Your task to perform on an android device: turn pop-ups off in chrome Image 0: 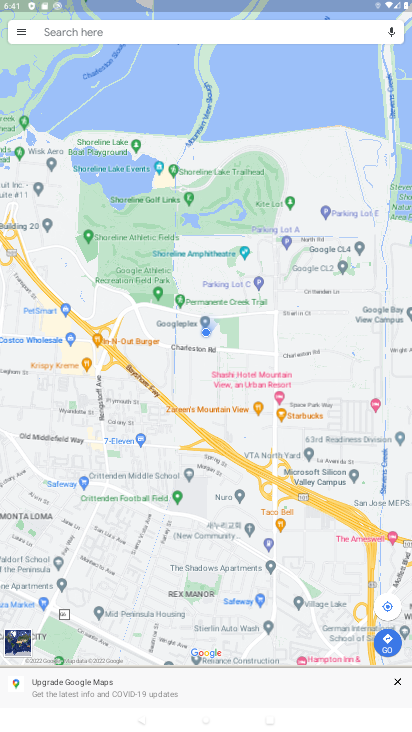
Step 0: press home button
Your task to perform on an android device: turn pop-ups off in chrome Image 1: 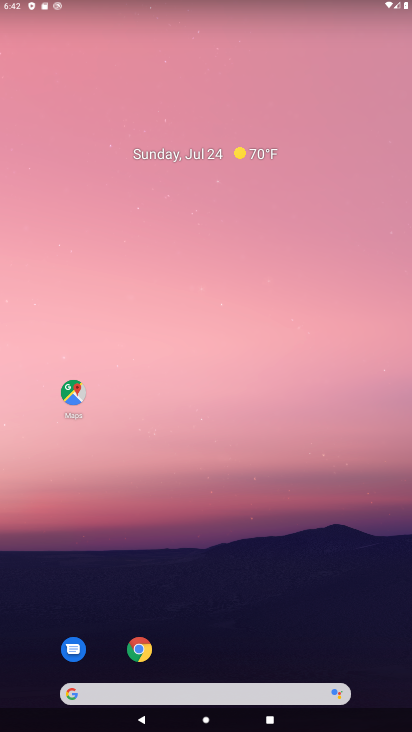
Step 1: click (137, 651)
Your task to perform on an android device: turn pop-ups off in chrome Image 2: 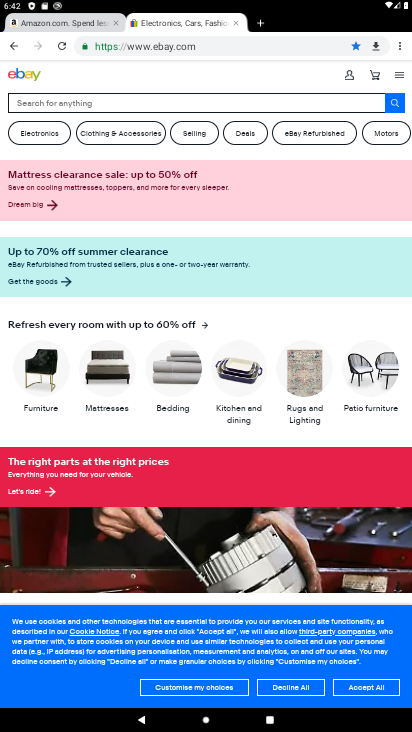
Step 2: click (400, 39)
Your task to perform on an android device: turn pop-ups off in chrome Image 3: 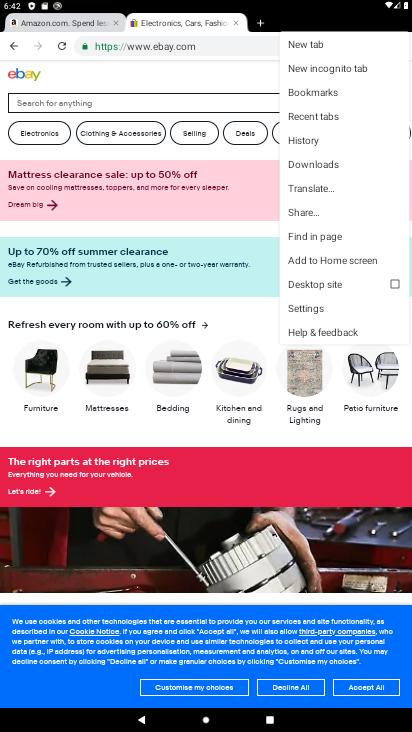
Step 3: click (311, 302)
Your task to perform on an android device: turn pop-ups off in chrome Image 4: 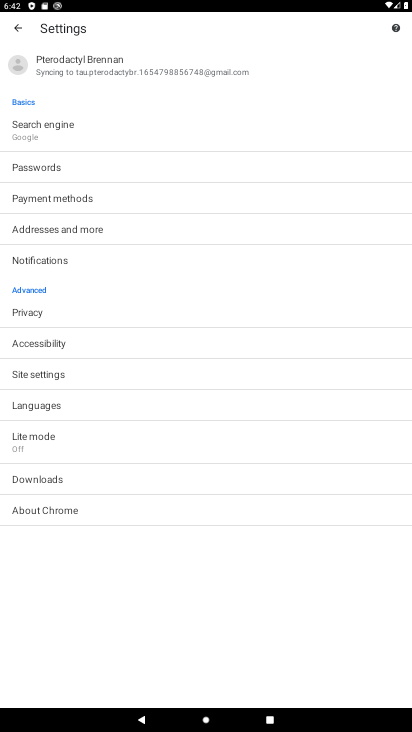
Step 4: click (36, 367)
Your task to perform on an android device: turn pop-ups off in chrome Image 5: 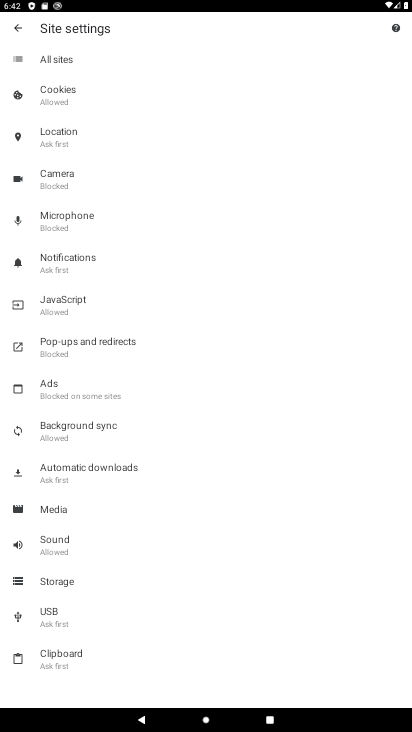
Step 5: click (91, 340)
Your task to perform on an android device: turn pop-ups off in chrome Image 6: 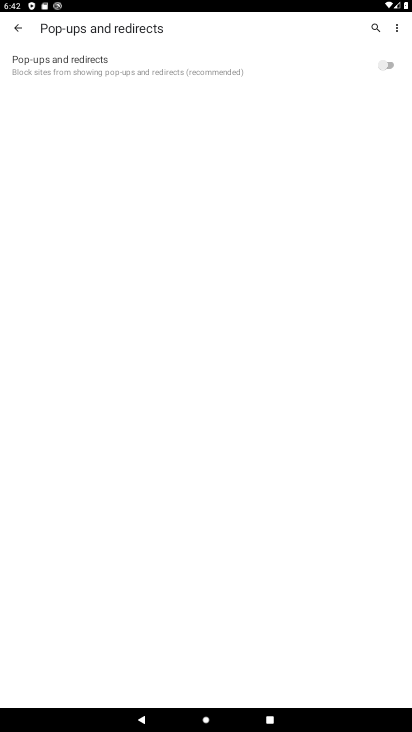
Step 6: task complete